Your task to perform on an android device: Open calendar and show me the fourth week of next month Image 0: 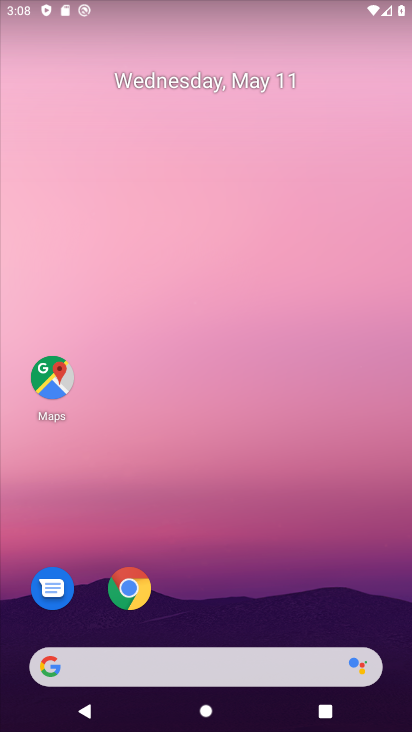
Step 0: drag from (265, 243) to (300, 0)
Your task to perform on an android device: Open calendar and show me the fourth week of next month Image 1: 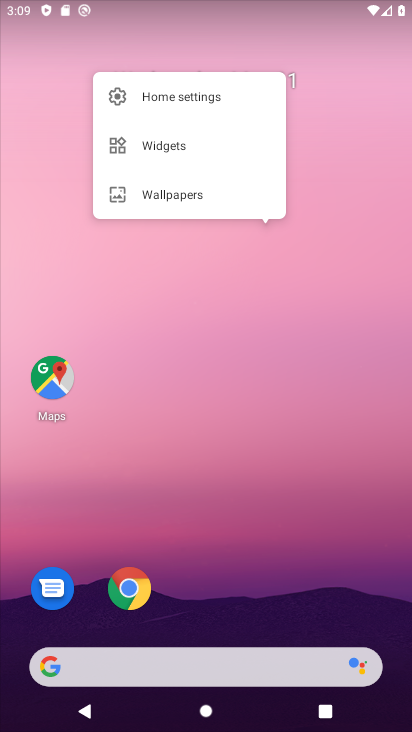
Step 1: click (250, 472)
Your task to perform on an android device: Open calendar and show me the fourth week of next month Image 2: 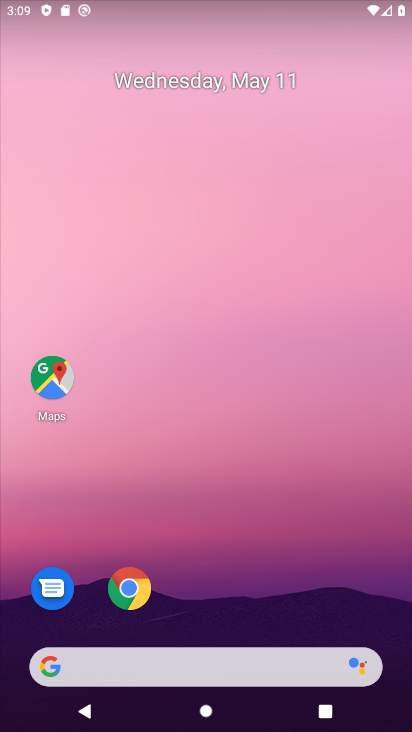
Step 2: drag from (237, 606) to (303, 2)
Your task to perform on an android device: Open calendar and show me the fourth week of next month Image 3: 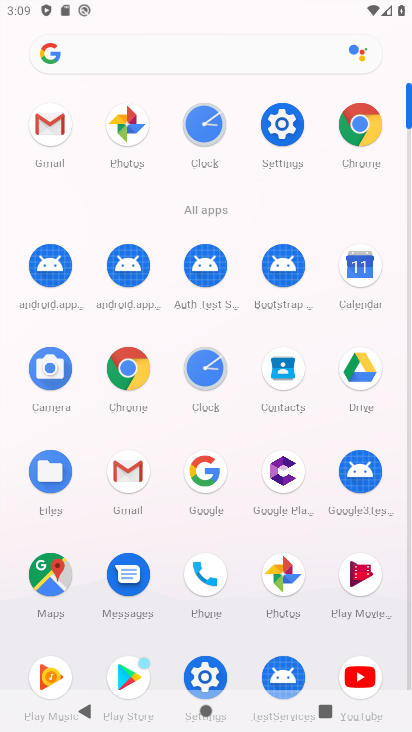
Step 3: click (370, 267)
Your task to perform on an android device: Open calendar and show me the fourth week of next month Image 4: 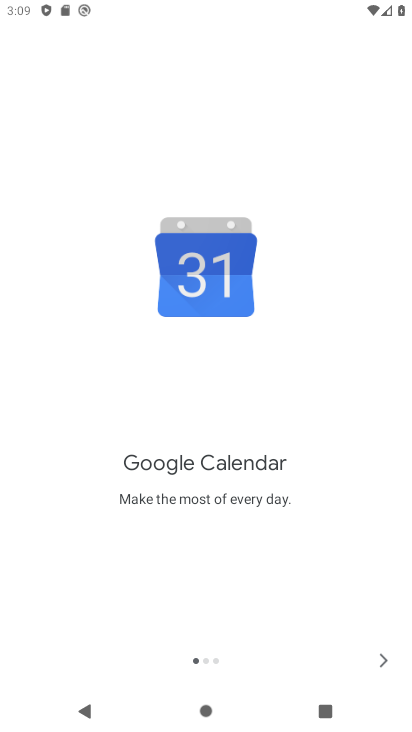
Step 4: click (391, 656)
Your task to perform on an android device: Open calendar and show me the fourth week of next month Image 5: 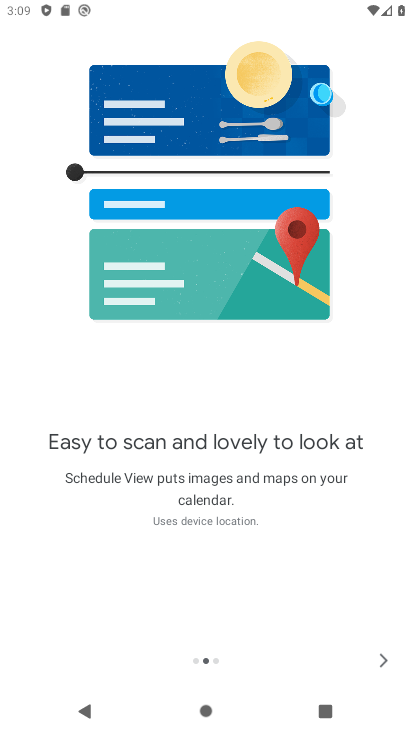
Step 5: click (373, 658)
Your task to perform on an android device: Open calendar and show me the fourth week of next month Image 6: 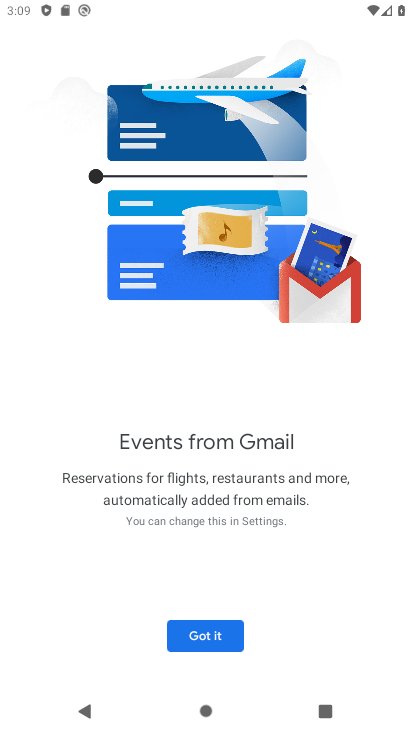
Step 6: click (215, 624)
Your task to perform on an android device: Open calendar and show me the fourth week of next month Image 7: 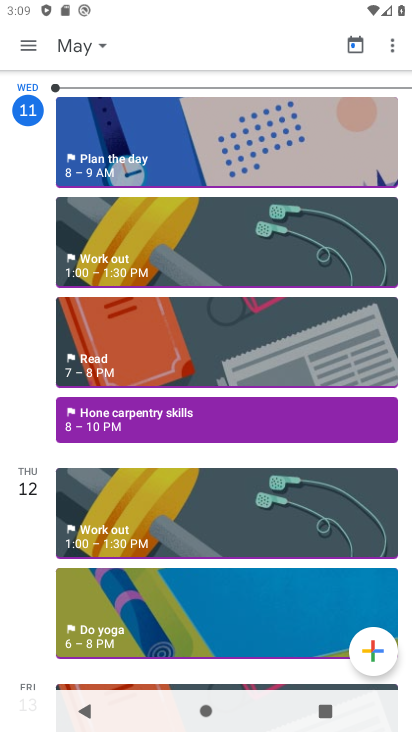
Step 7: click (29, 34)
Your task to perform on an android device: Open calendar and show me the fourth week of next month Image 8: 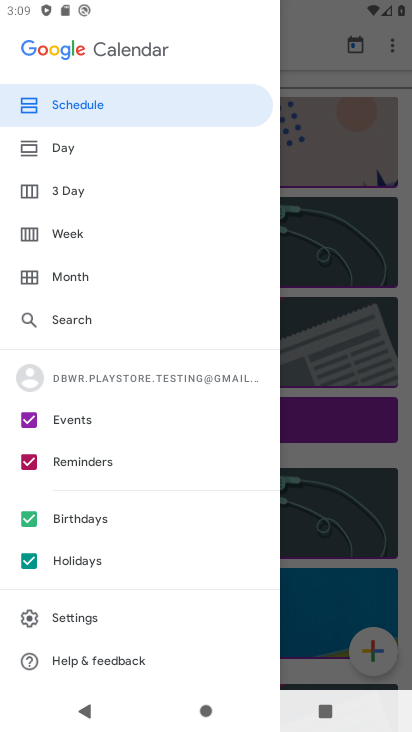
Step 8: click (61, 235)
Your task to perform on an android device: Open calendar and show me the fourth week of next month Image 9: 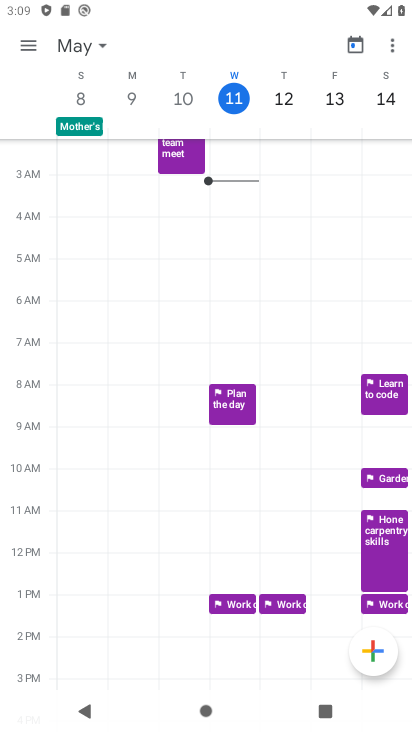
Step 9: task complete